Your task to perform on an android device: Open Maps and search for coffee Image 0: 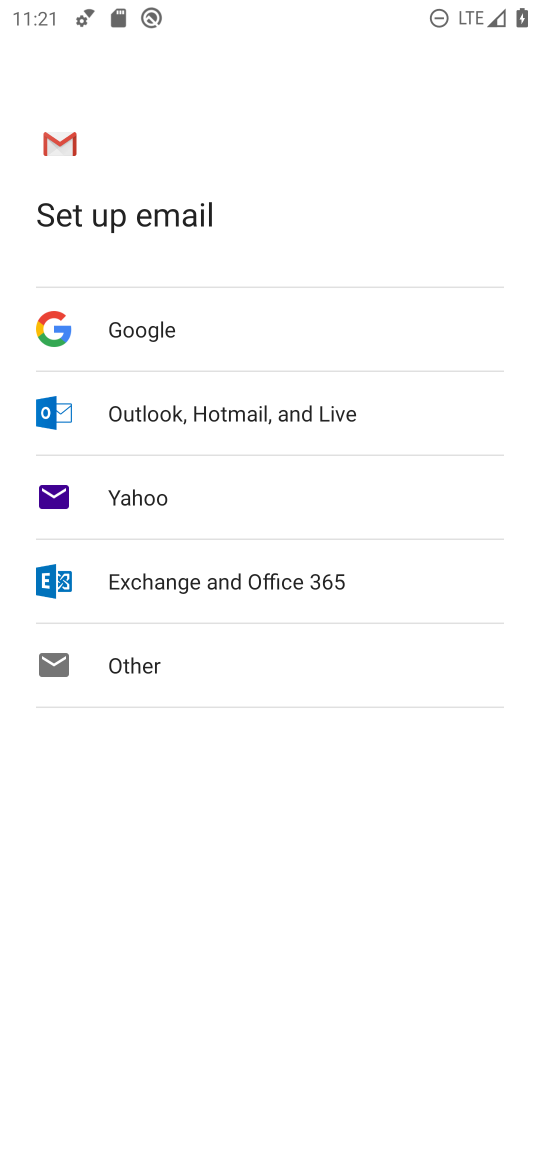
Step 0: press home button
Your task to perform on an android device: Open Maps and search for coffee Image 1: 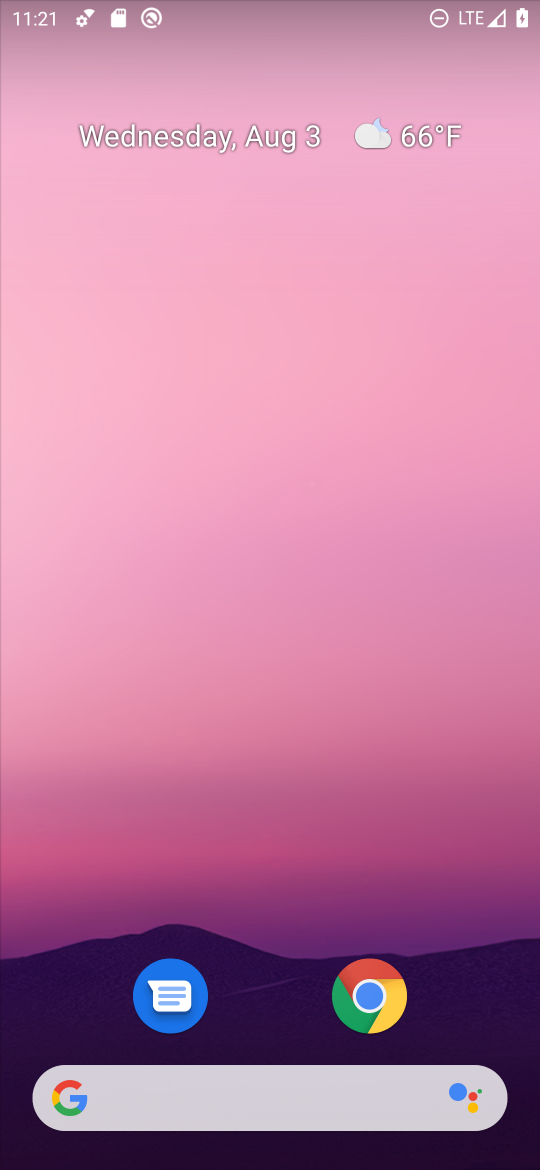
Step 1: drag from (289, 959) to (276, 3)
Your task to perform on an android device: Open Maps and search for coffee Image 2: 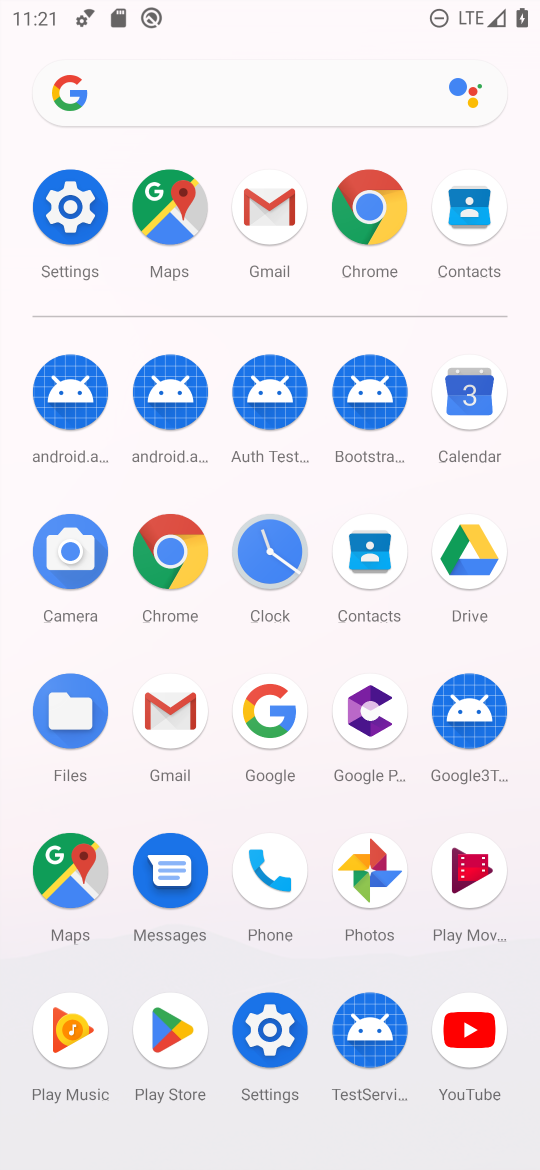
Step 2: click (172, 212)
Your task to perform on an android device: Open Maps and search for coffee Image 3: 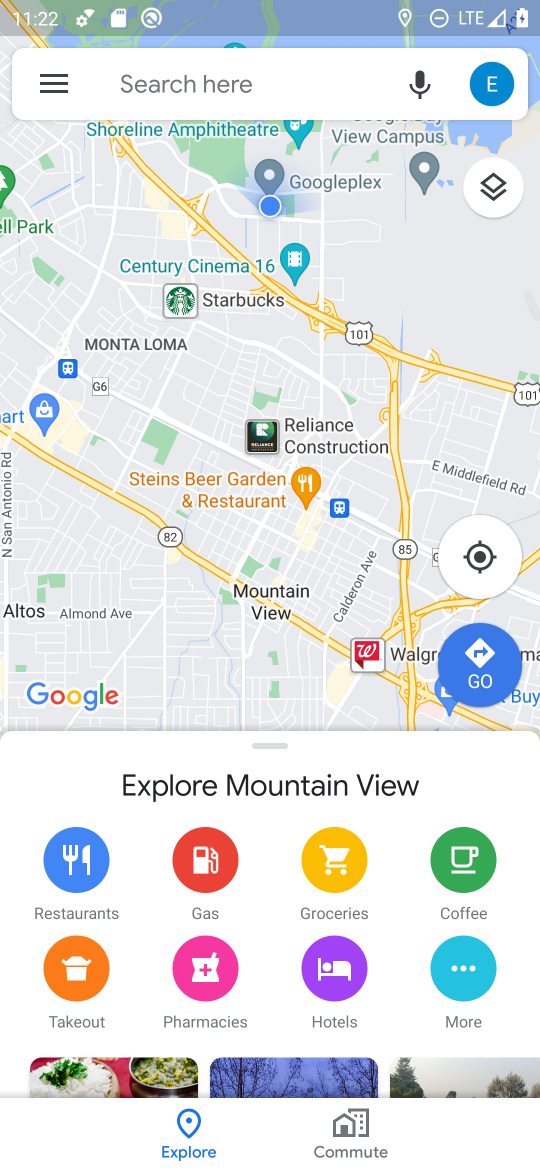
Step 3: click (205, 77)
Your task to perform on an android device: Open Maps and search for coffee Image 4: 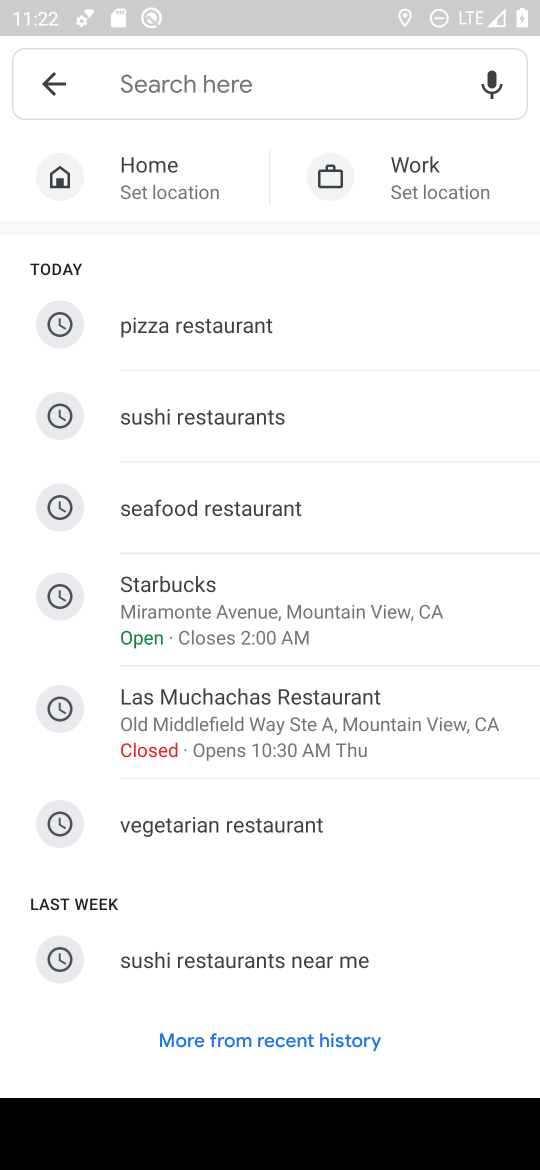
Step 4: type "coffee shop"
Your task to perform on an android device: Open Maps and search for coffee Image 5: 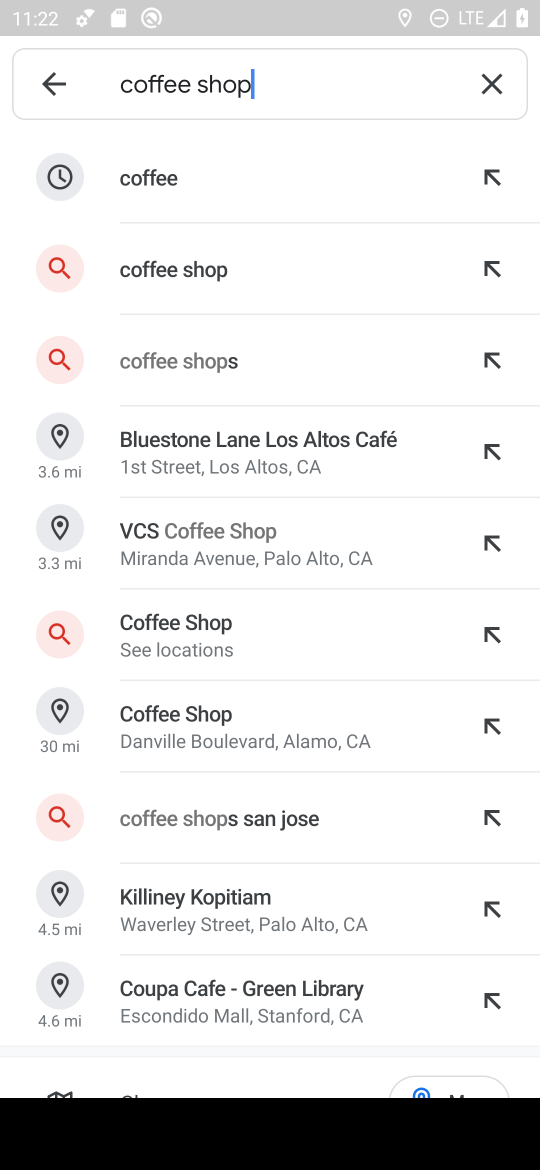
Step 5: click (203, 265)
Your task to perform on an android device: Open Maps and search for coffee Image 6: 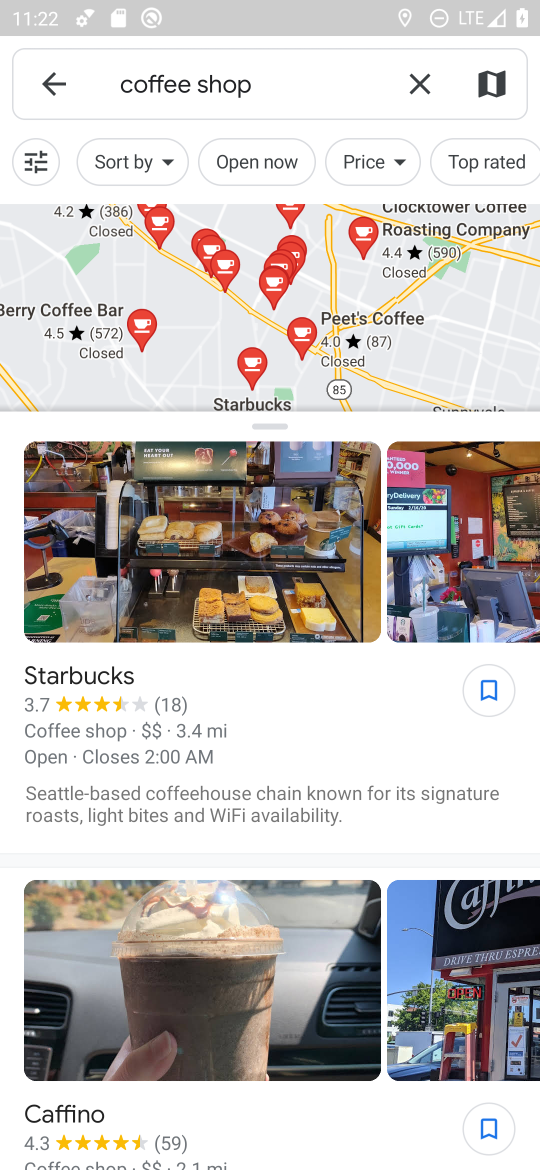
Step 6: task complete